Your task to perform on an android device: Open Google Chrome and click the shortcut for Amazon.com Image 0: 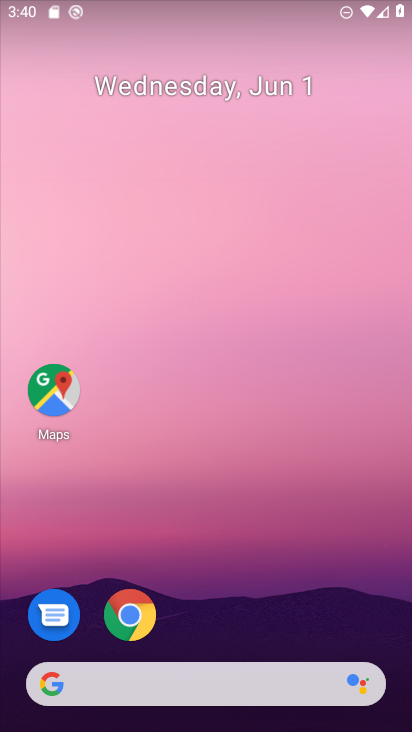
Step 0: click (126, 610)
Your task to perform on an android device: Open Google Chrome and click the shortcut for Amazon.com Image 1: 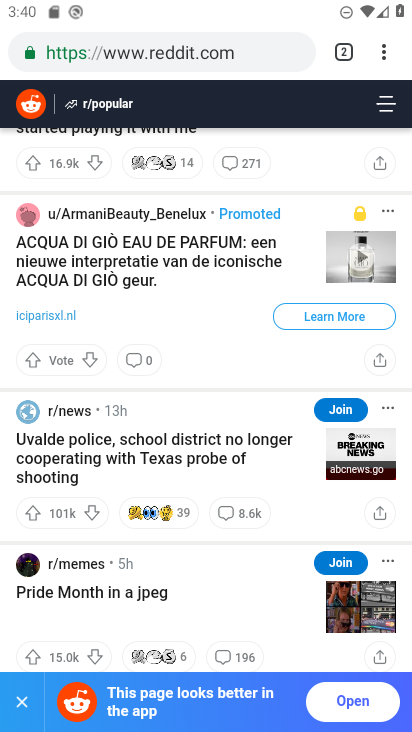
Step 1: click (339, 50)
Your task to perform on an android device: Open Google Chrome and click the shortcut for Amazon.com Image 2: 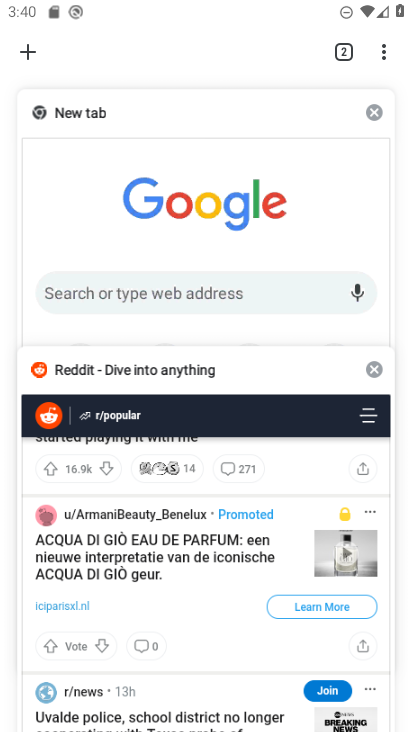
Step 2: click (375, 108)
Your task to perform on an android device: Open Google Chrome and click the shortcut for Amazon.com Image 3: 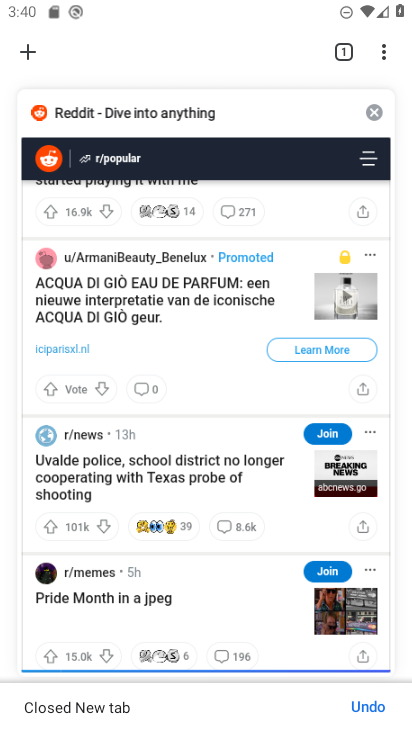
Step 3: click (373, 105)
Your task to perform on an android device: Open Google Chrome and click the shortcut for Amazon.com Image 4: 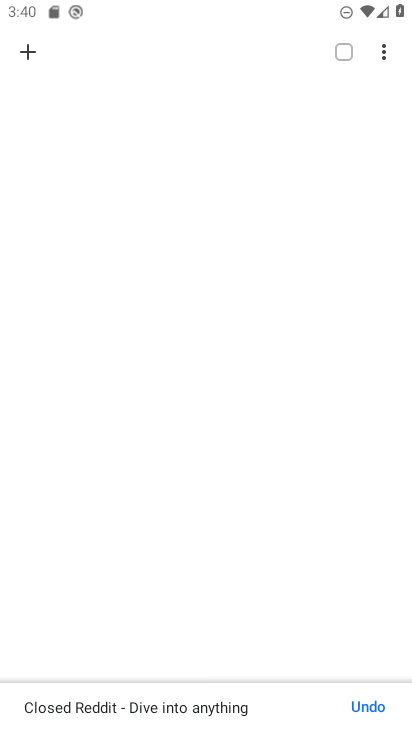
Step 4: click (36, 49)
Your task to perform on an android device: Open Google Chrome and click the shortcut for Amazon.com Image 5: 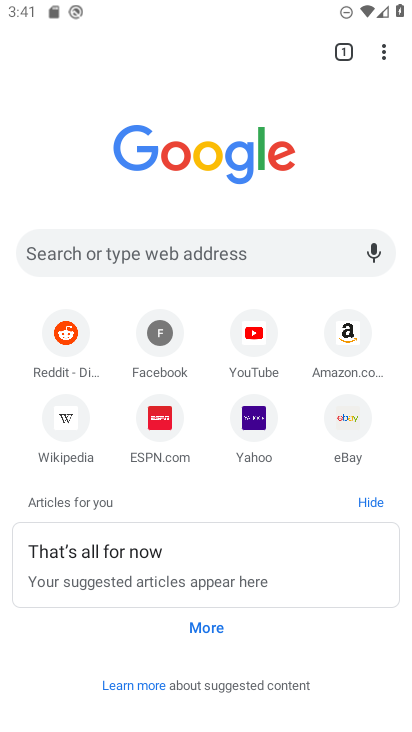
Step 5: click (340, 324)
Your task to perform on an android device: Open Google Chrome and click the shortcut for Amazon.com Image 6: 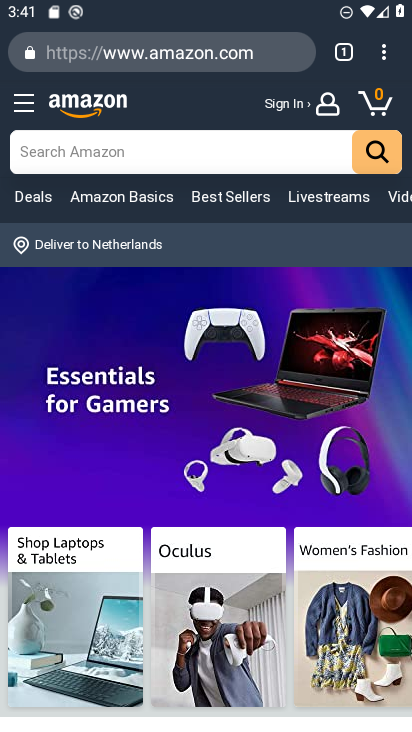
Step 6: task complete